Your task to perform on an android device: Go to Maps Image 0: 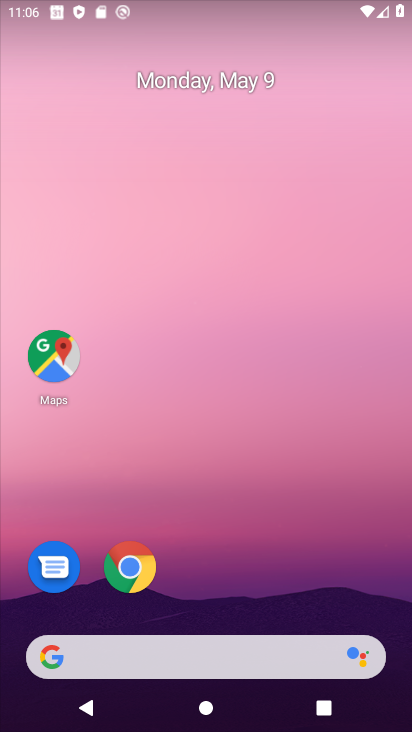
Step 0: drag from (389, 633) to (244, 46)
Your task to perform on an android device: Go to Maps Image 1: 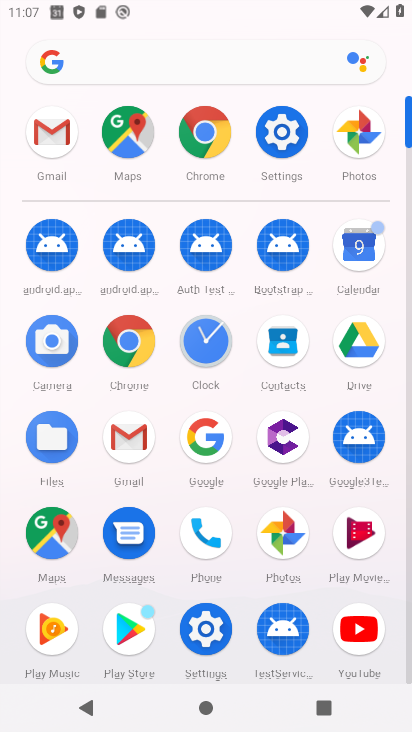
Step 1: click (48, 518)
Your task to perform on an android device: Go to Maps Image 2: 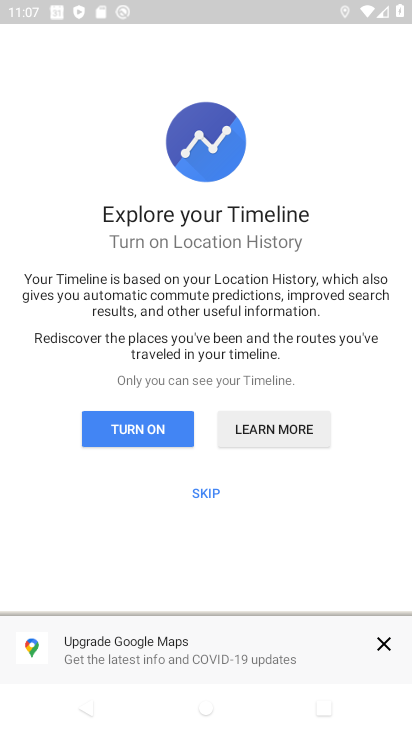
Step 2: task complete